Your task to perform on an android device: turn on location history Image 0: 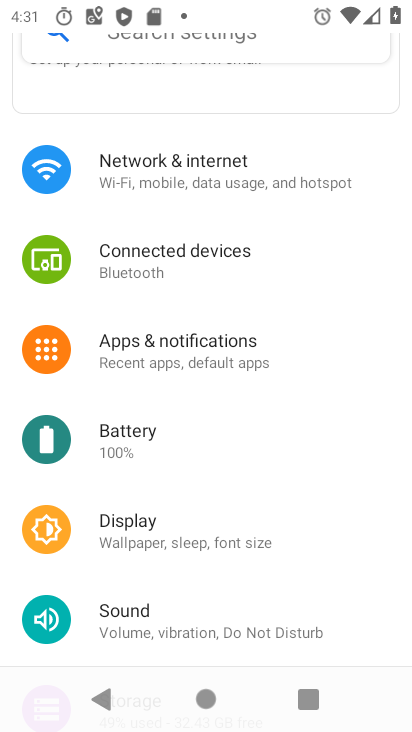
Step 0: click (321, 335)
Your task to perform on an android device: turn on location history Image 1: 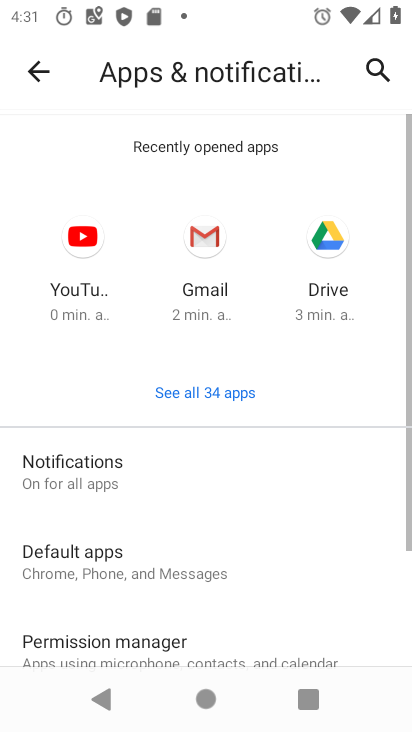
Step 1: drag from (368, 592) to (344, 387)
Your task to perform on an android device: turn on location history Image 2: 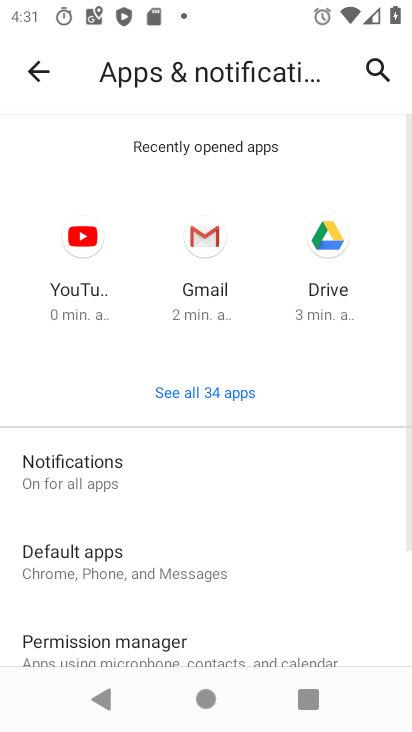
Step 2: click (42, 76)
Your task to perform on an android device: turn on location history Image 3: 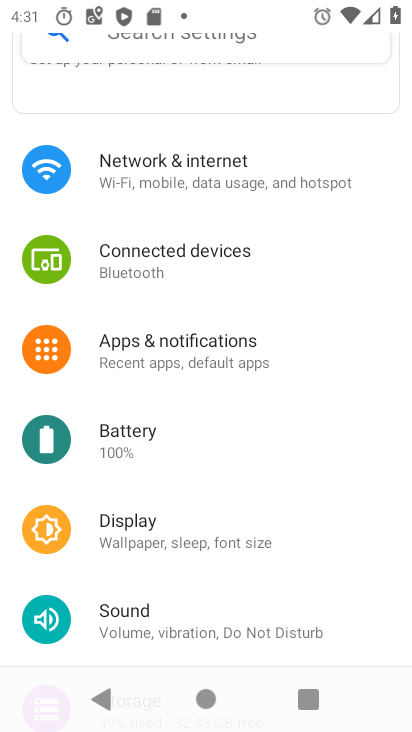
Step 3: drag from (360, 623) to (363, 259)
Your task to perform on an android device: turn on location history Image 4: 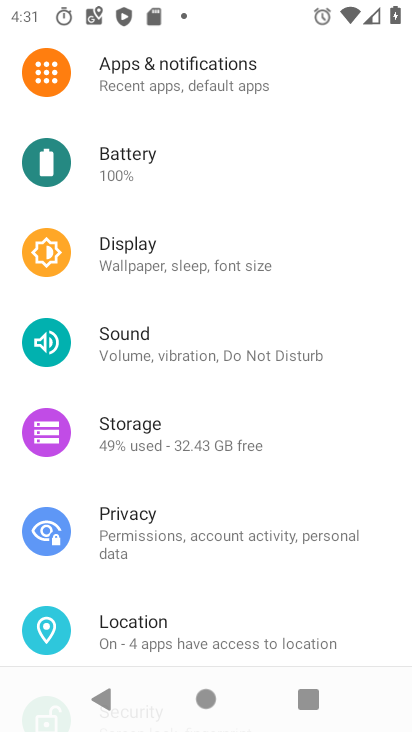
Step 4: drag from (356, 621) to (357, 306)
Your task to perform on an android device: turn on location history Image 5: 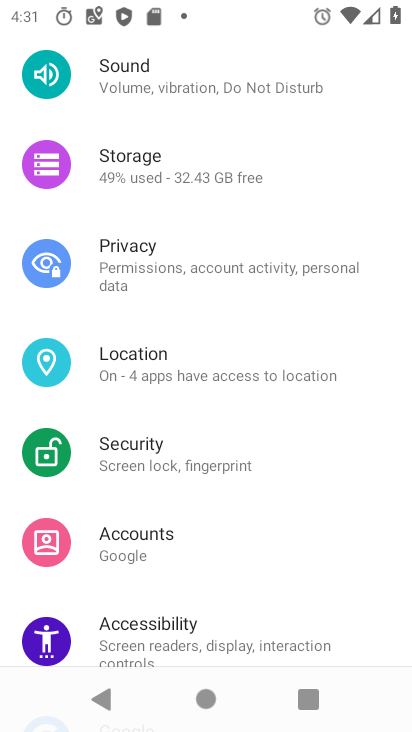
Step 5: click (146, 370)
Your task to perform on an android device: turn on location history Image 6: 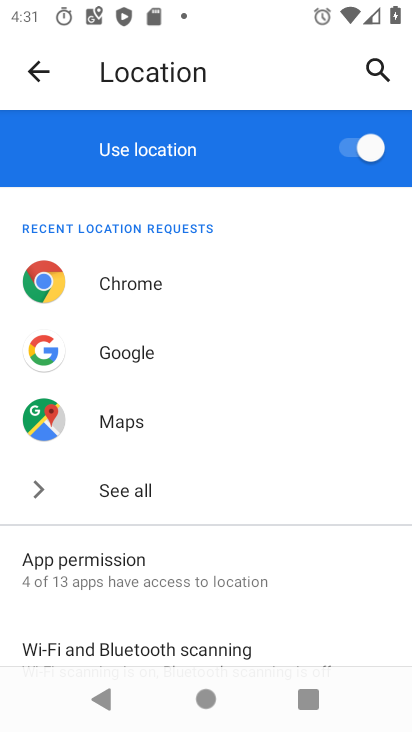
Step 6: drag from (331, 612) to (322, 431)
Your task to perform on an android device: turn on location history Image 7: 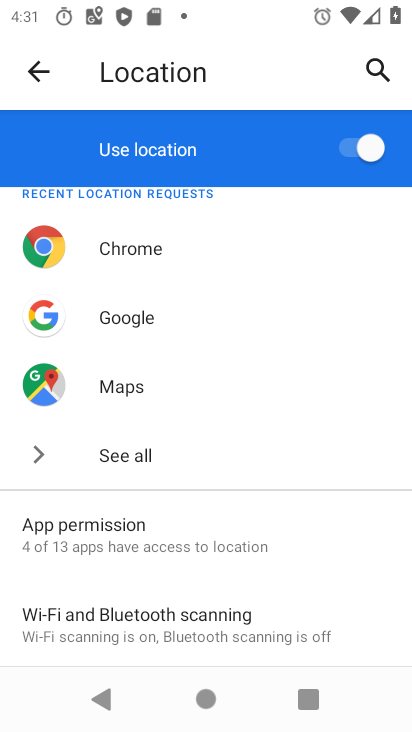
Step 7: drag from (302, 538) to (286, 417)
Your task to perform on an android device: turn on location history Image 8: 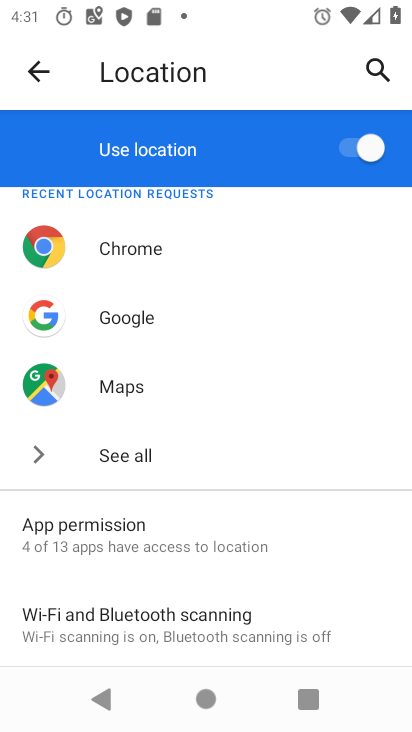
Step 8: drag from (320, 607) to (302, 474)
Your task to perform on an android device: turn on location history Image 9: 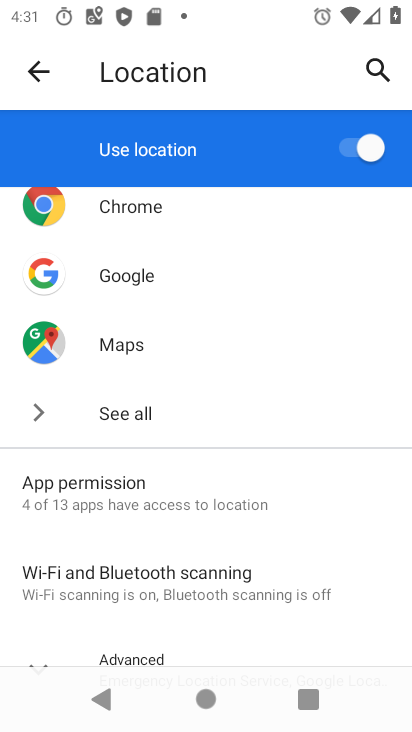
Step 9: drag from (349, 611) to (339, 460)
Your task to perform on an android device: turn on location history Image 10: 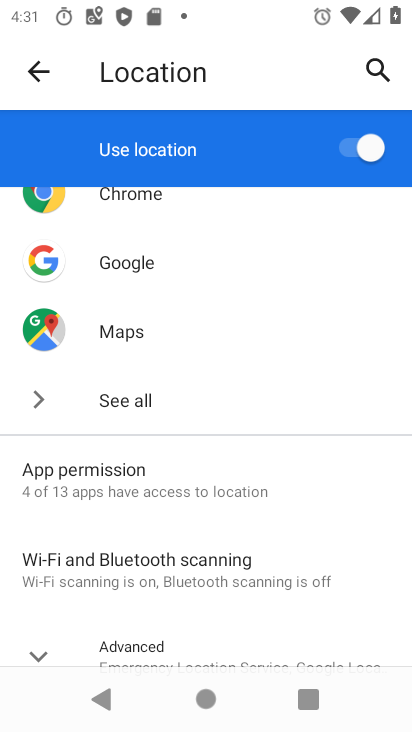
Step 10: drag from (352, 605) to (338, 423)
Your task to perform on an android device: turn on location history Image 11: 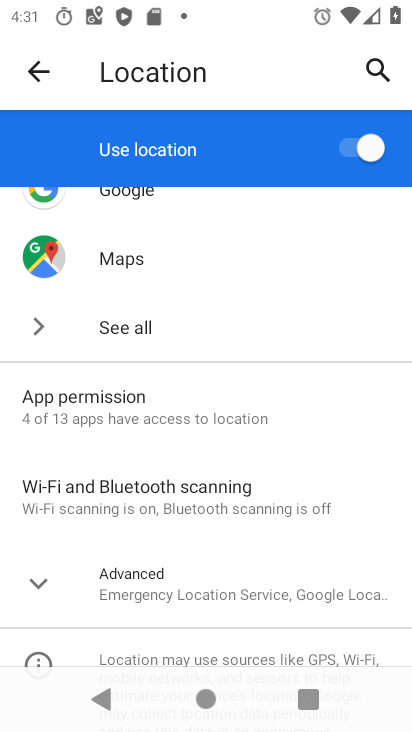
Step 11: drag from (322, 551) to (311, 349)
Your task to perform on an android device: turn on location history Image 12: 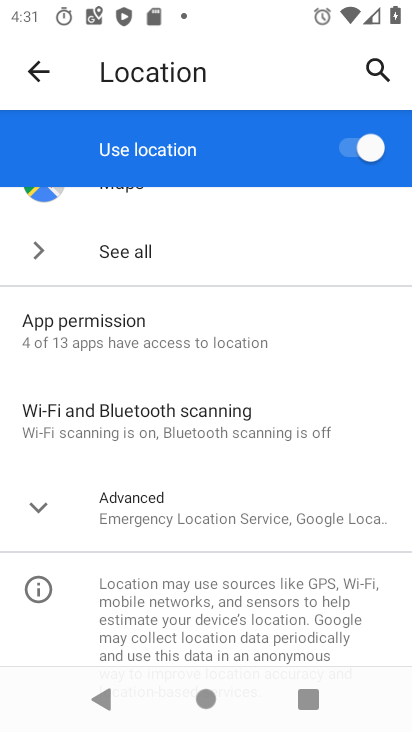
Step 12: click (31, 507)
Your task to perform on an android device: turn on location history Image 13: 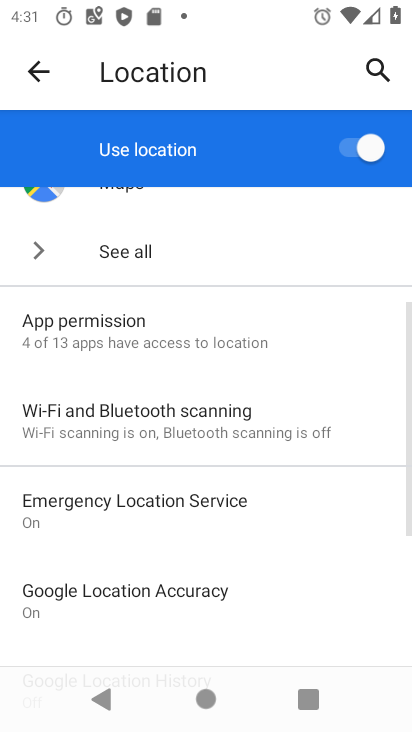
Step 13: drag from (343, 621) to (310, 340)
Your task to perform on an android device: turn on location history Image 14: 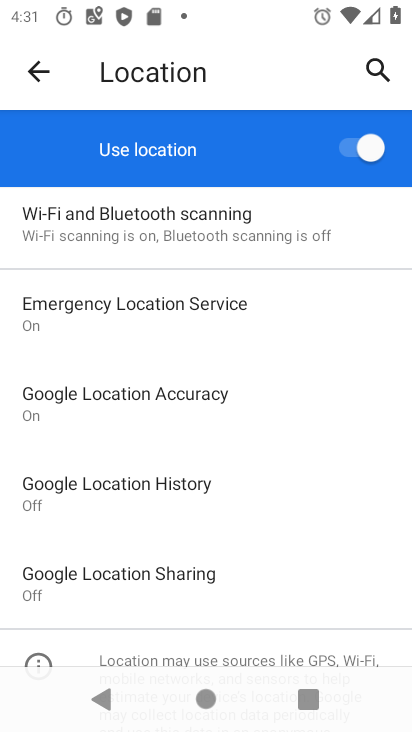
Step 14: click (106, 484)
Your task to perform on an android device: turn on location history Image 15: 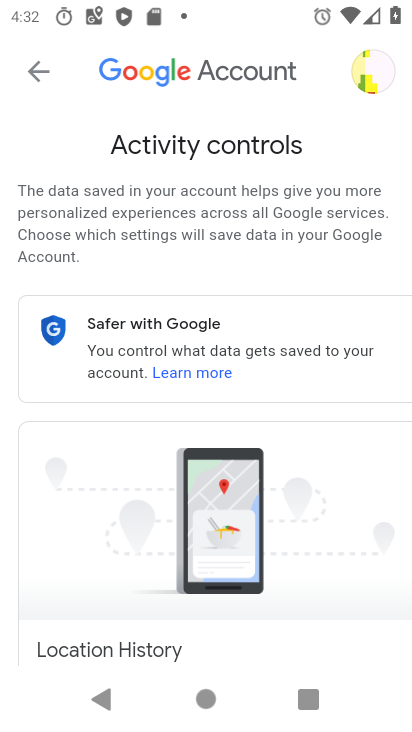
Step 15: drag from (317, 592) to (310, 344)
Your task to perform on an android device: turn on location history Image 16: 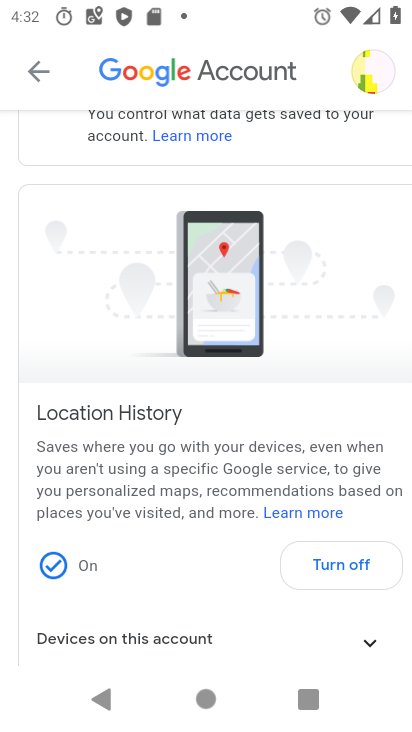
Step 16: click (339, 563)
Your task to perform on an android device: turn on location history Image 17: 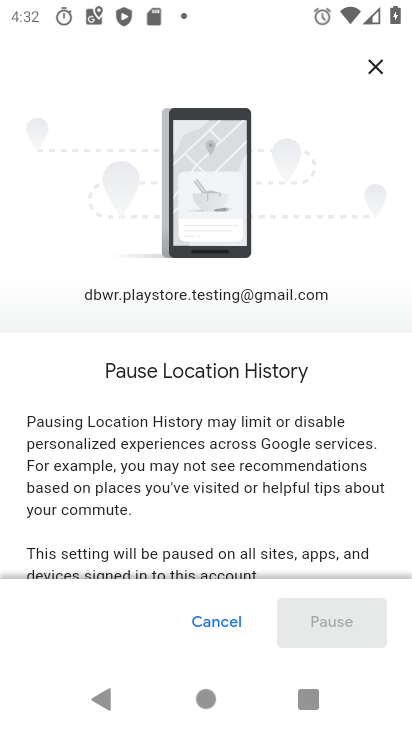
Step 17: drag from (287, 548) to (280, 376)
Your task to perform on an android device: turn on location history Image 18: 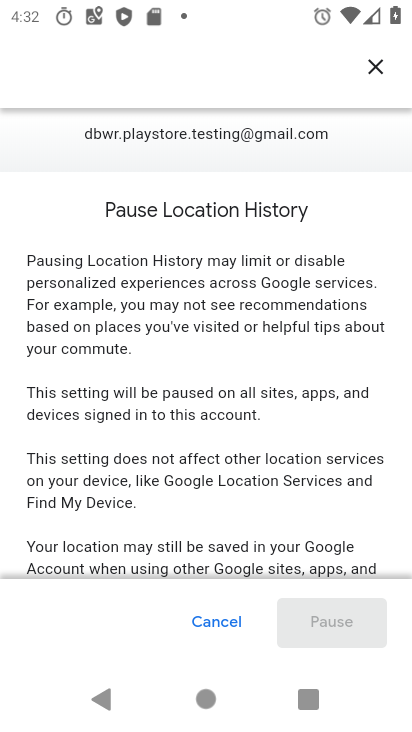
Step 18: drag from (275, 492) to (274, 279)
Your task to perform on an android device: turn on location history Image 19: 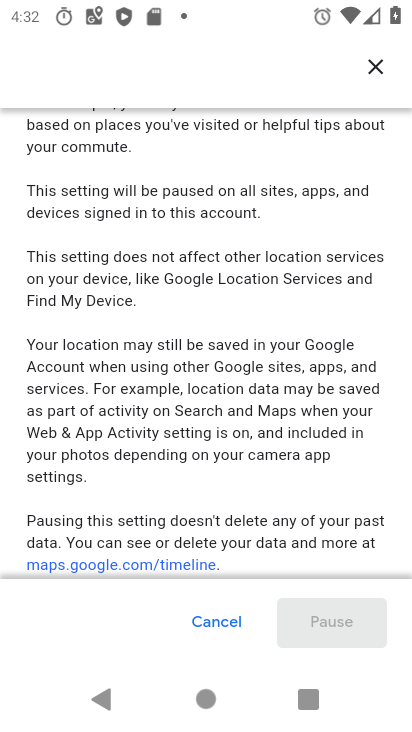
Step 19: drag from (268, 511) to (256, 216)
Your task to perform on an android device: turn on location history Image 20: 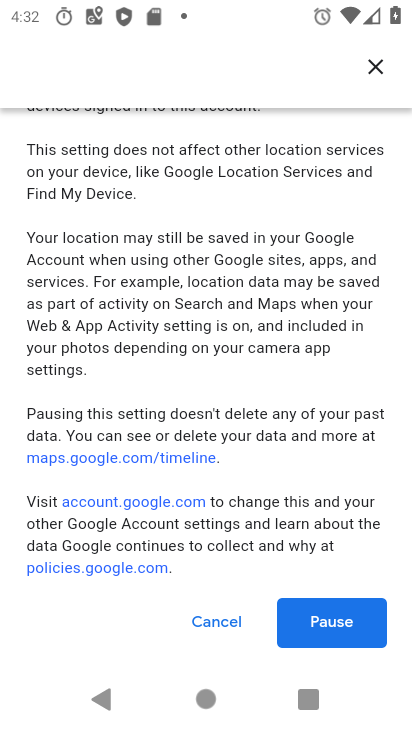
Step 20: drag from (263, 499) to (246, 275)
Your task to perform on an android device: turn on location history Image 21: 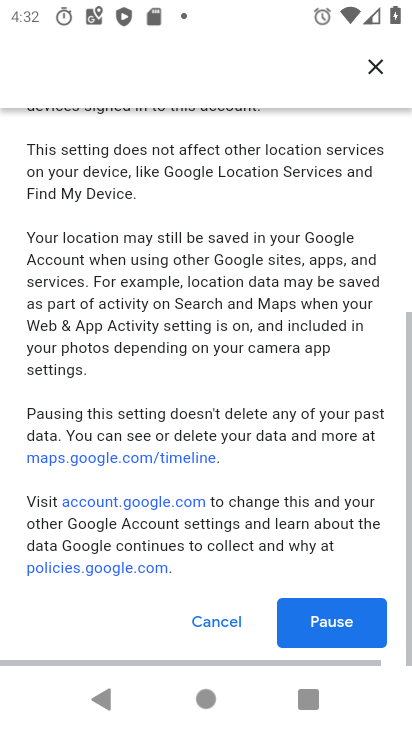
Step 21: click (330, 621)
Your task to perform on an android device: turn on location history Image 22: 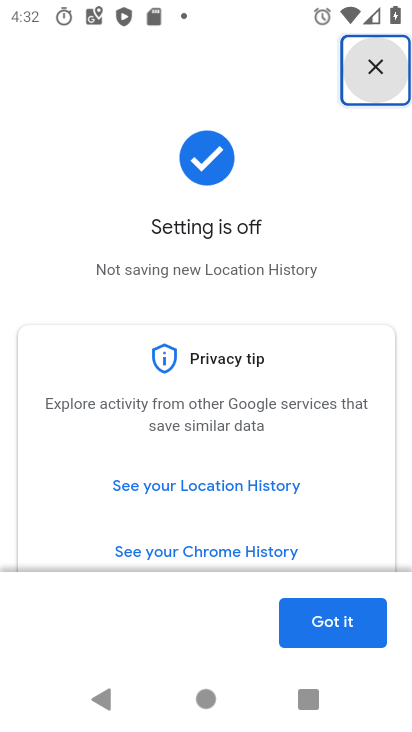
Step 22: click (325, 617)
Your task to perform on an android device: turn on location history Image 23: 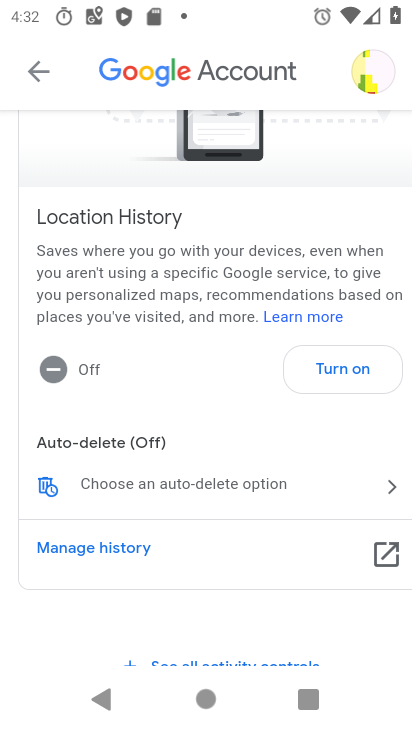
Step 23: task complete